Your task to perform on an android device: Open Chrome and go to settings Image 0: 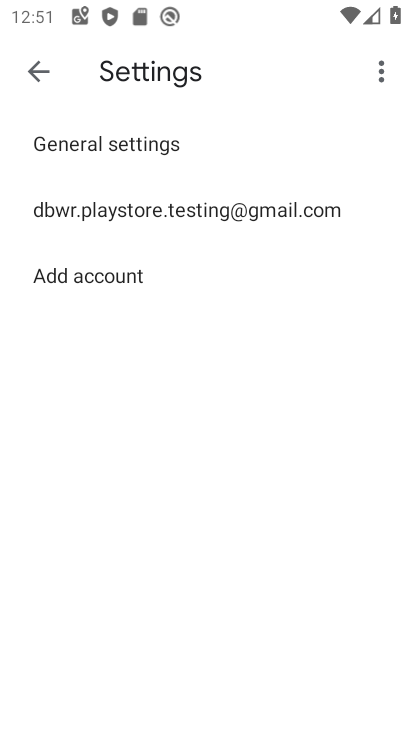
Step 0: press home button
Your task to perform on an android device: Open Chrome and go to settings Image 1: 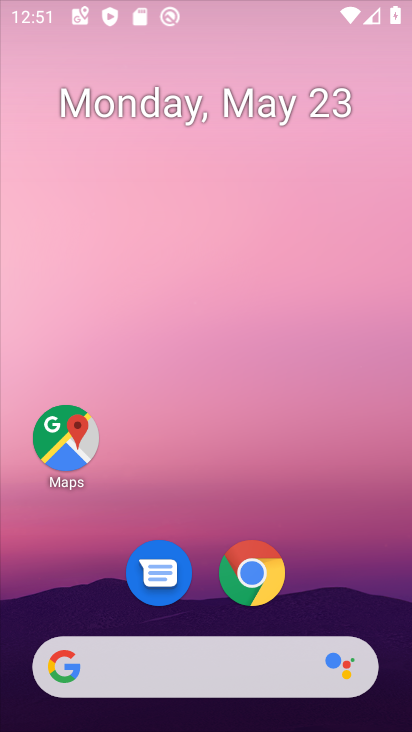
Step 1: drag from (175, 666) to (200, 48)
Your task to perform on an android device: Open Chrome and go to settings Image 2: 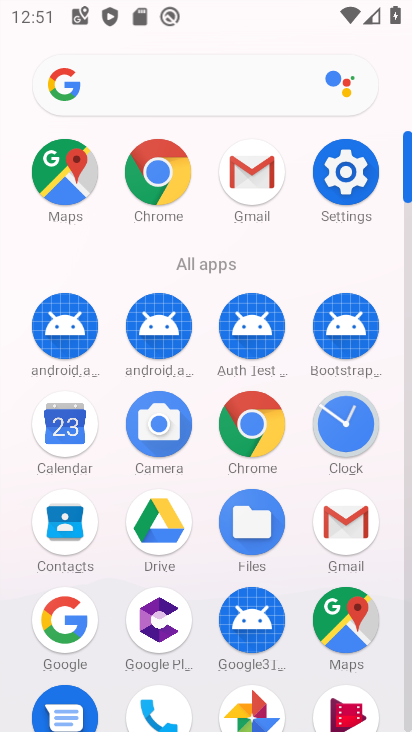
Step 2: click (251, 425)
Your task to perform on an android device: Open Chrome and go to settings Image 3: 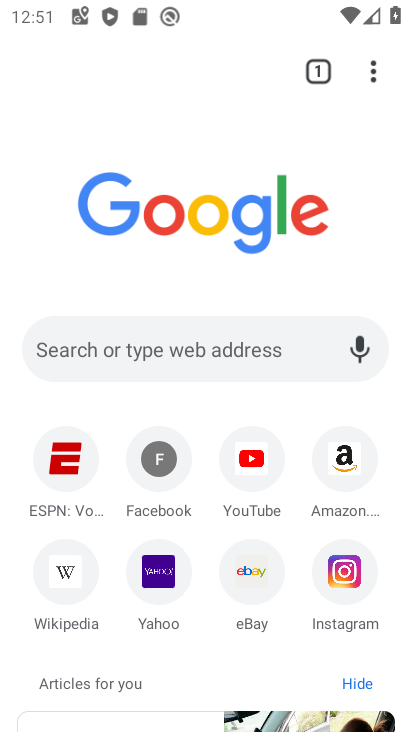
Step 3: task complete